Your task to perform on an android device: Is it going to rain today? Image 0: 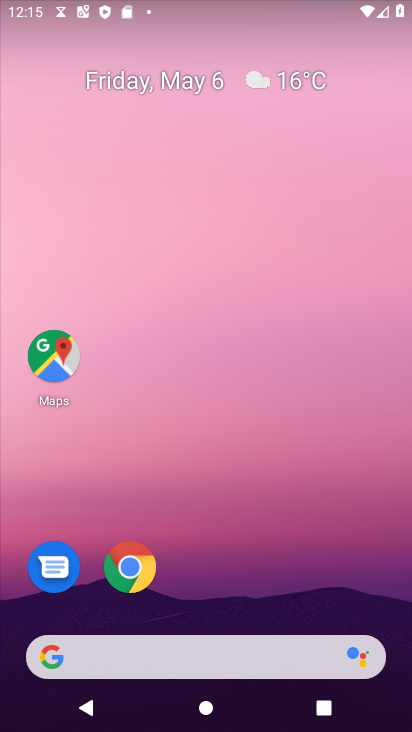
Step 0: drag from (278, 471) to (288, 11)
Your task to perform on an android device: Is it going to rain today? Image 1: 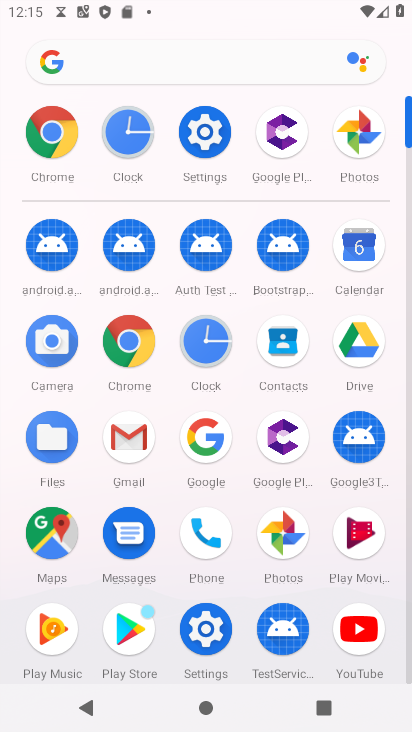
Step 1: press home button
Your task to perform on an android device: Is it going to rain today? Image 2: 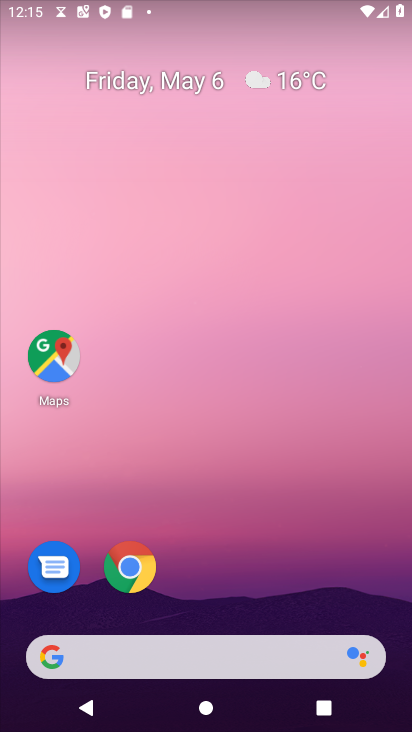
Step 2: click (250, 81)
Your task to perform on an android device: Is it going to rain today? Image 3: 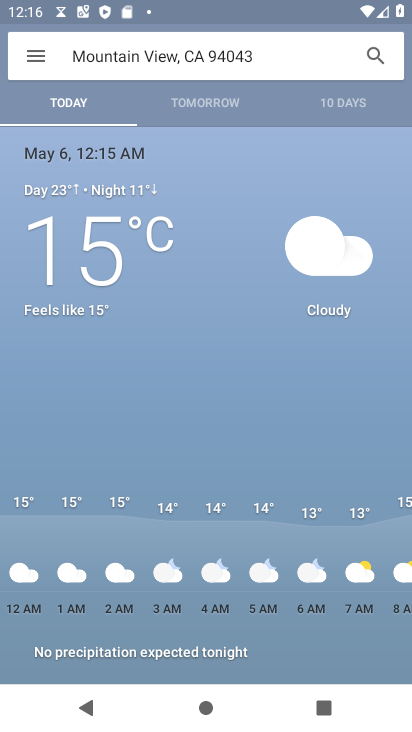
Step 3: task complete